Your task to perform on an android device: Go to Yahoo.com Image 0: 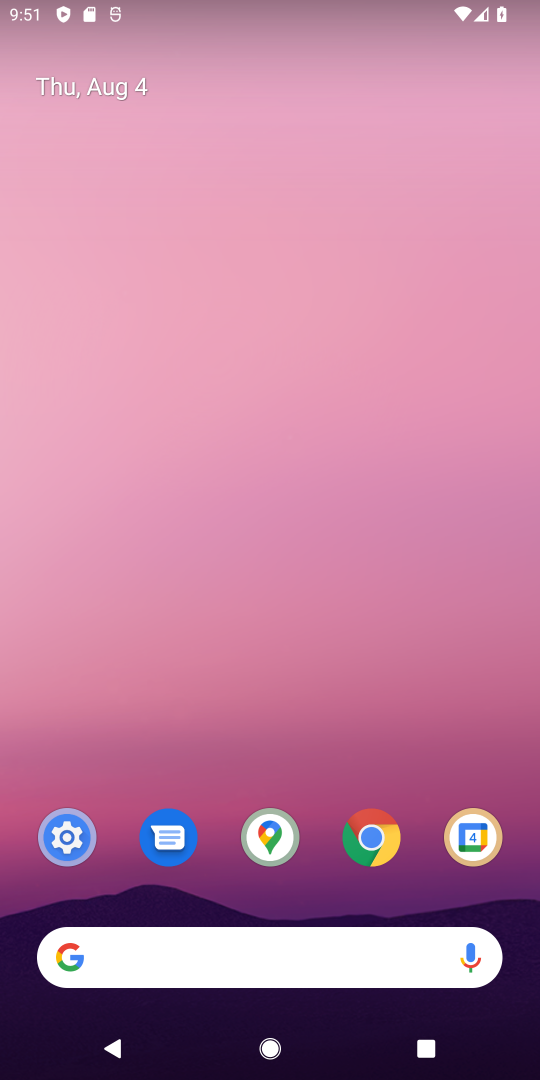
Step 0: drag from (317, 746) to (59, 814)
Your task to perform on an android device: Go to Yahoo.com Image 1: 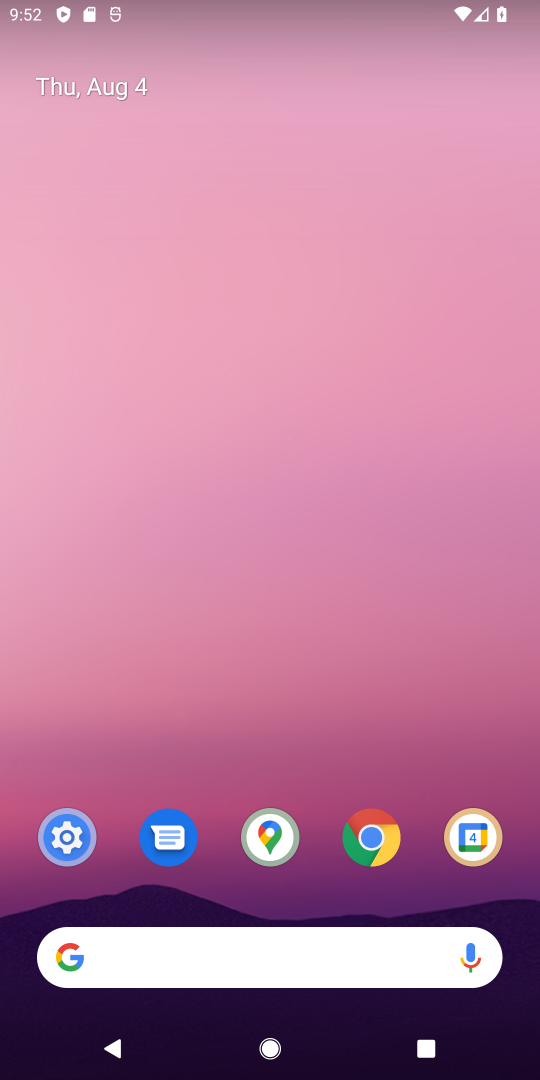
Step 1: drag from (439, 829) to (307, 3)
Your task to perform on an android device: Go to Yahoo.com Image 2: 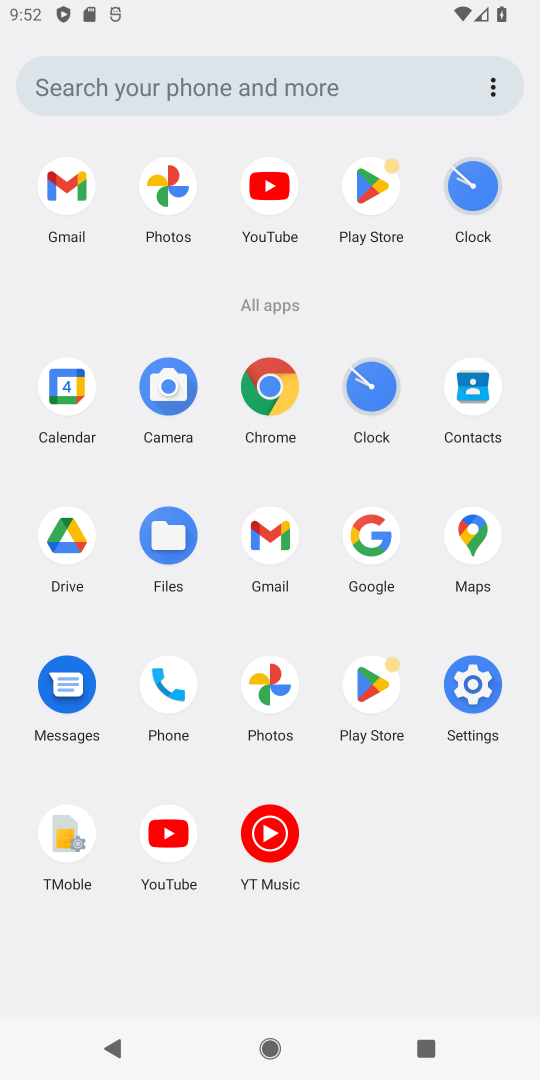
Step 2: click (375, 533)
Your task to perform on an android device: Go to Yahoo.com Image 3: 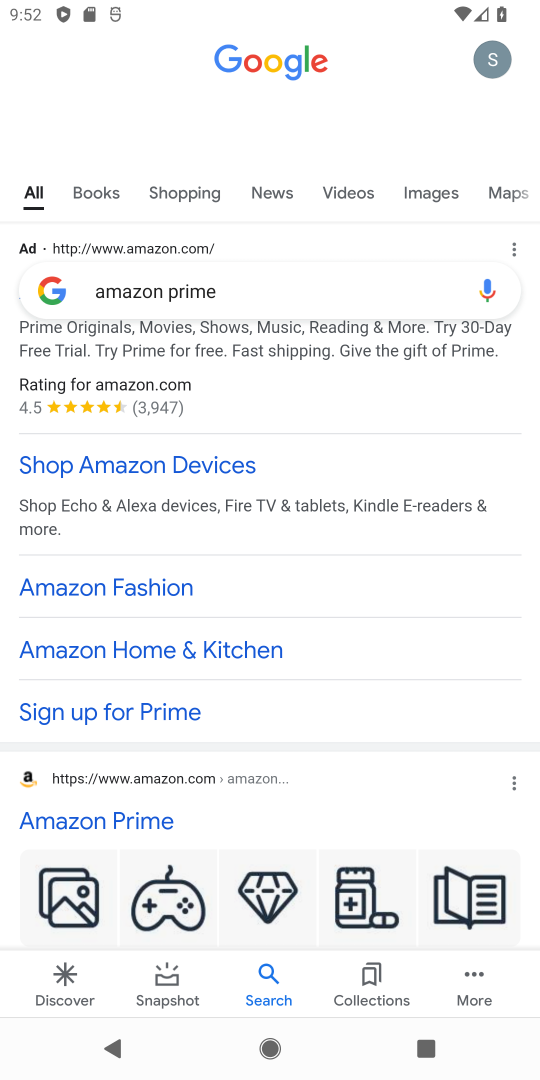
Step 3: press back button
Your task to perform on an android device: Go to Yahoo.com Image 4: 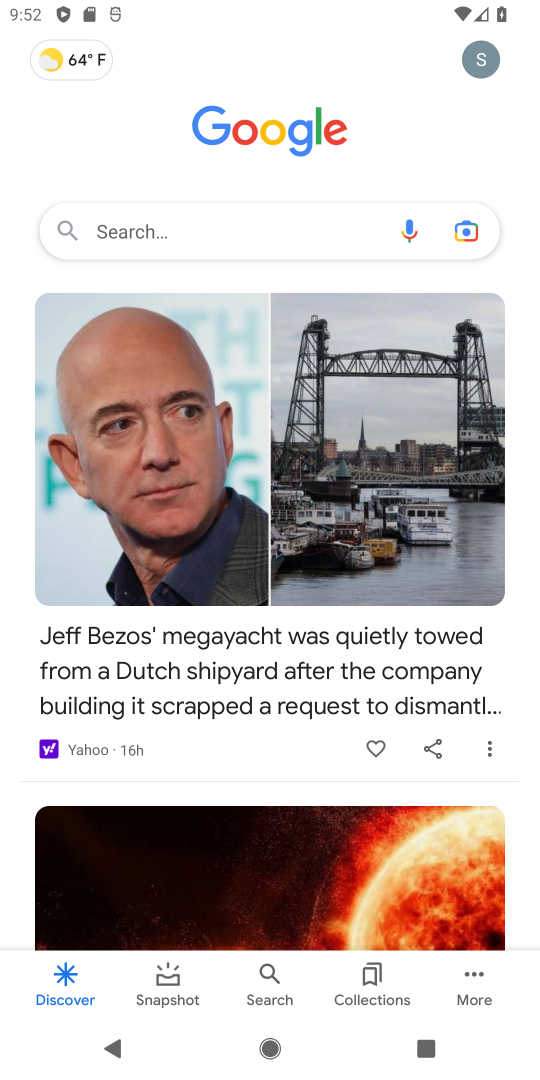
Step 4: click (133, 234)
Your task to perform on an android device: Go to Yahoo.com Image 5: 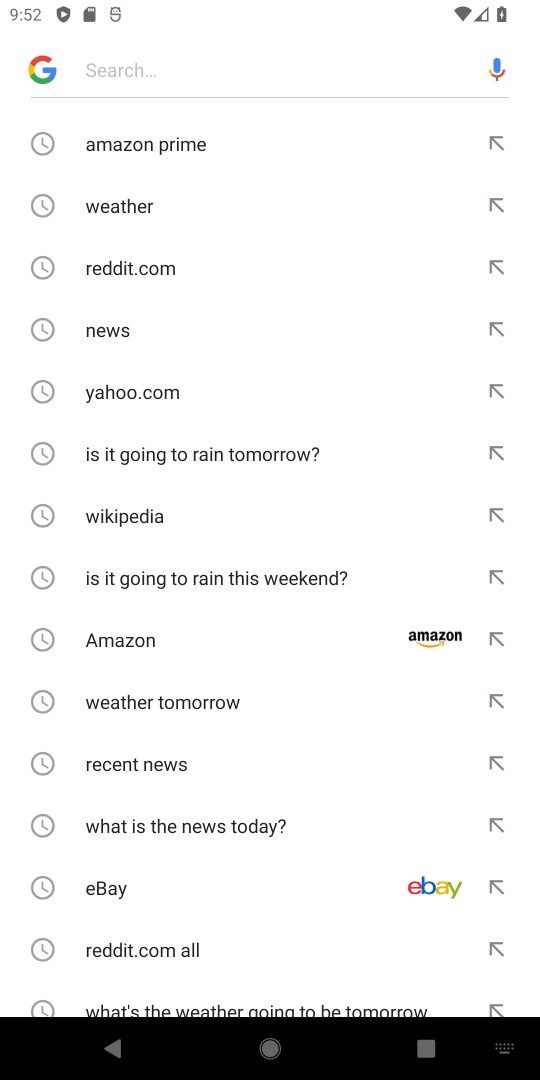
Step 5: click (172, 398)
Your task to perform on an android device: Go to Yahoo.com Image 6: 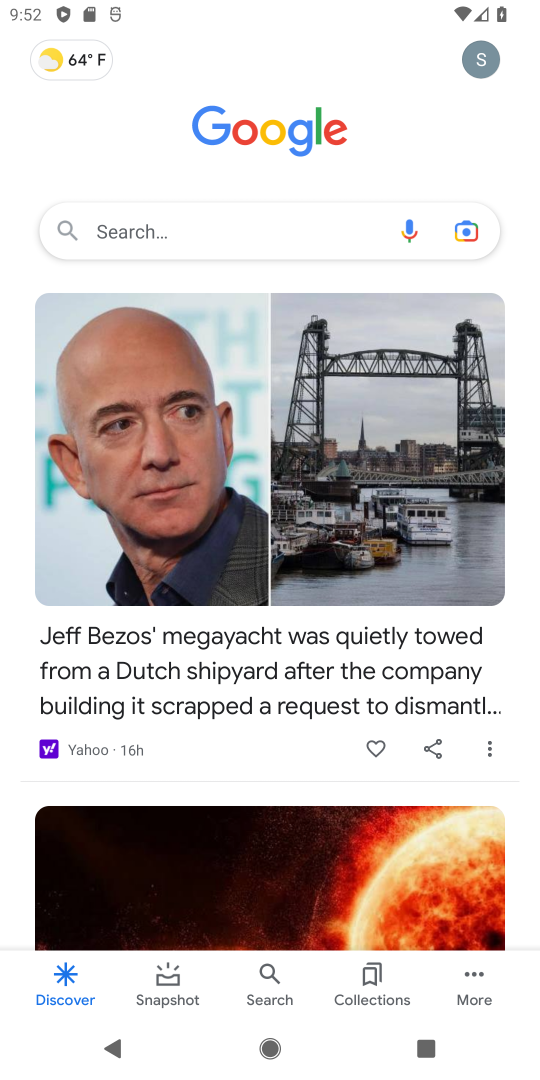
Step 6: click (191, 225)
Your task to perform on an android device: Go to Yahoo.com Image 7: 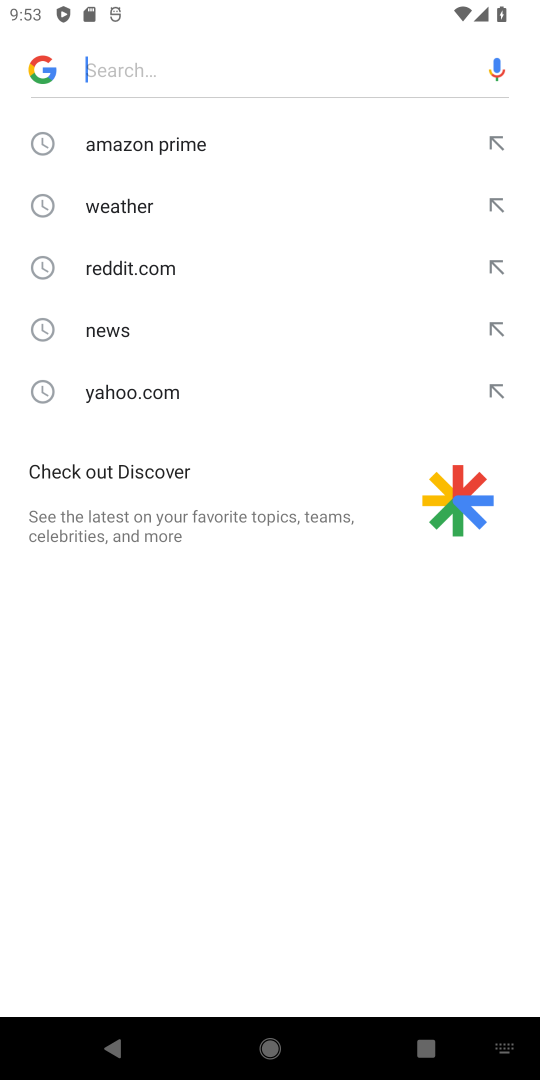
Step 7: click (188, 390)
Your task to perform on an android device: Go to Yahoo.com Image 8: 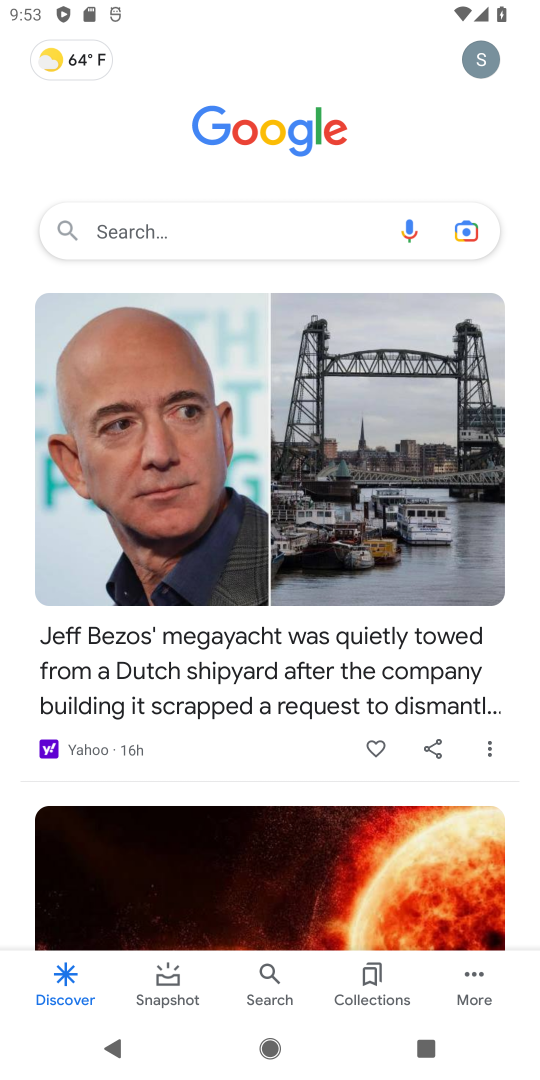
Step 8: task complete